Your task to perform on an android device: What's the weather today? Image 0: 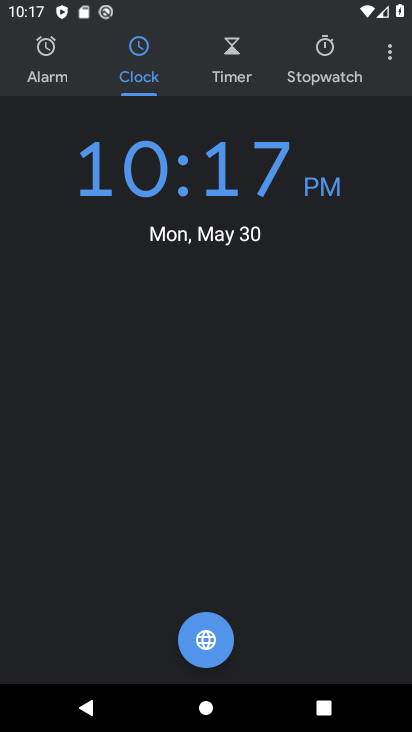
Step 0: press home button
Your task to perform on an android device: What's the weather today? Image 1: 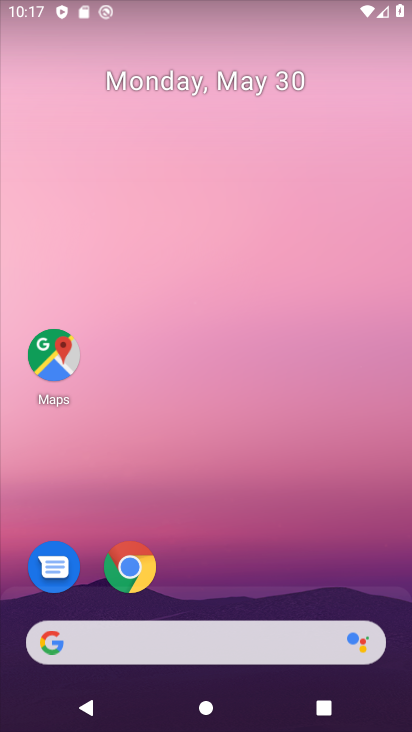
Step 1: drag from (191, 561) to (191, 191)
Your task to perform on an android device: What's the weather today? Image 2: 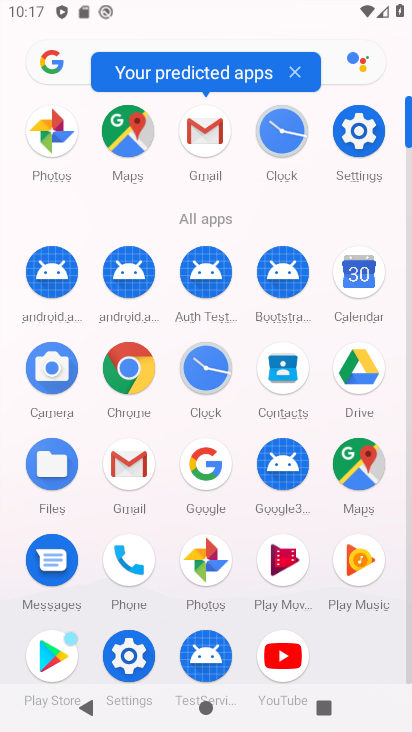
Step 2: click (213, 465)
Your task to perform on an android device: What's the weather today? Image 3: 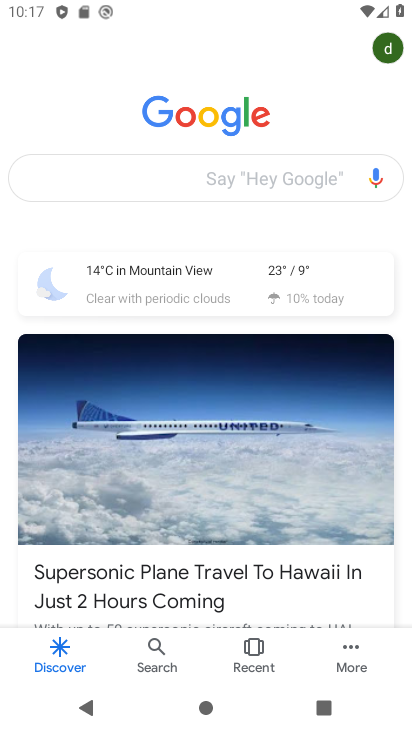
Step 3: click (175, 267)
Your task to perform on an android device: What's the weather today? Image 4: 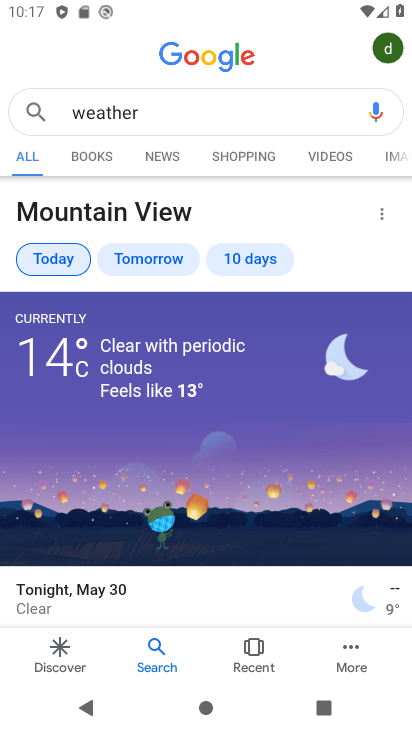
Step 4: task complete